Your task to perform on an android device: open a new tab in the chrome app Image 0: 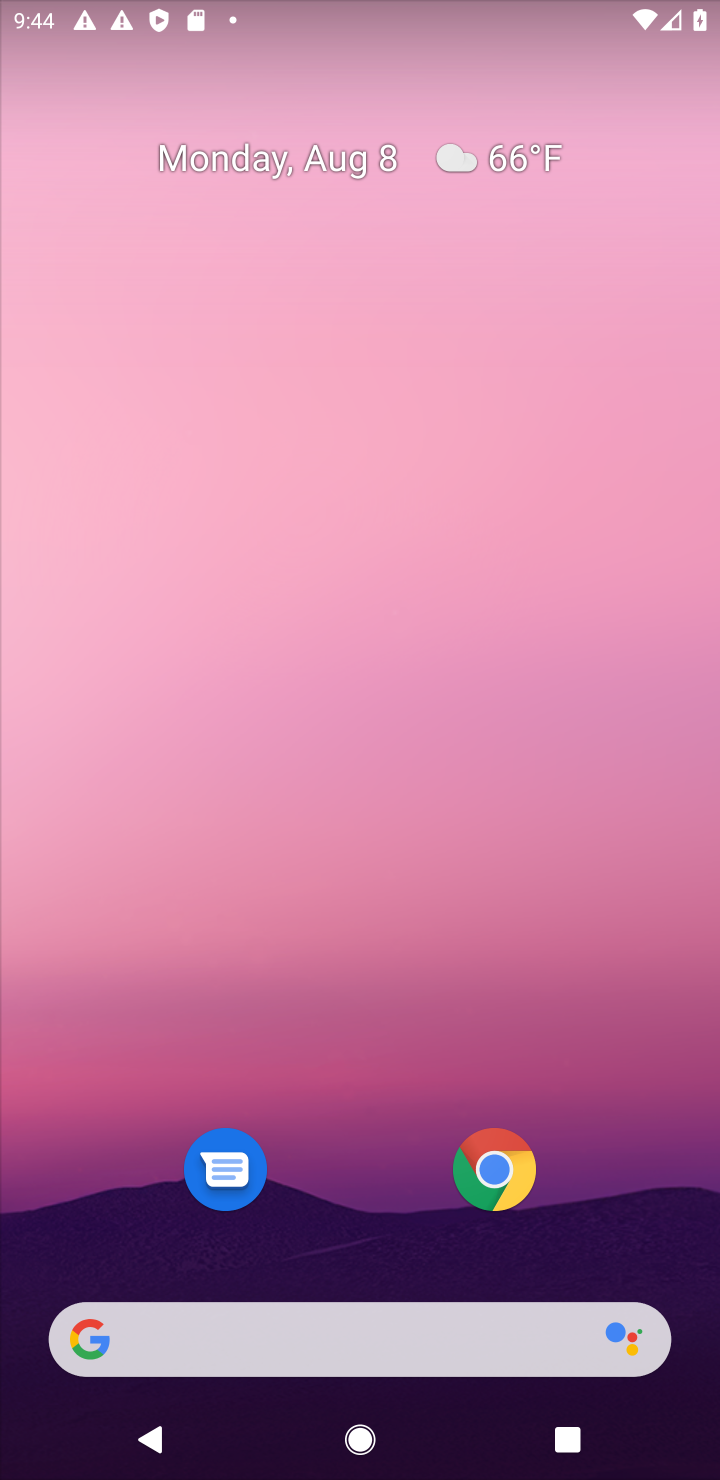
Step 0: click (491, 1166)
Your task to perform on an android device: open a new tab in the chrome app Image 1: 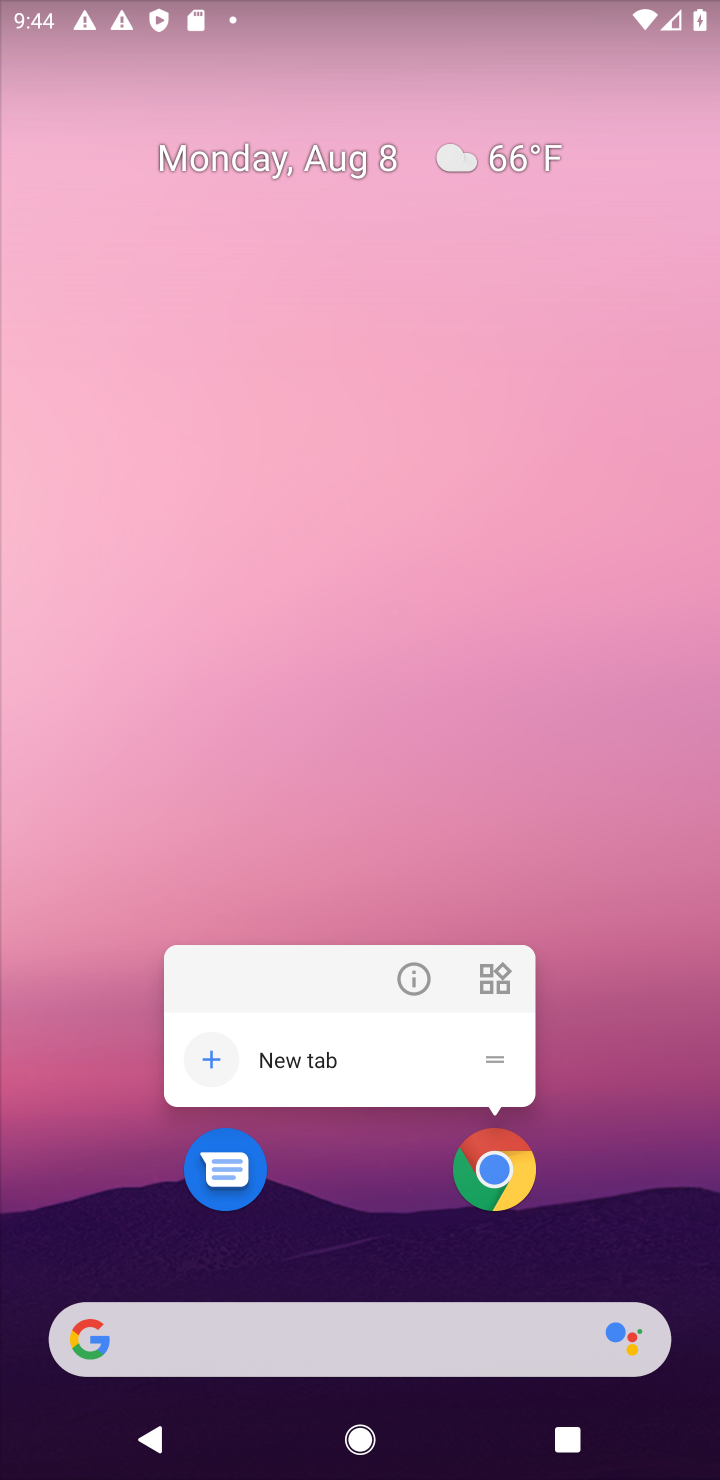
Step 1: click (491, 1166)
Your task to perform on an android device: open a new tab in the chrome app Image 2: 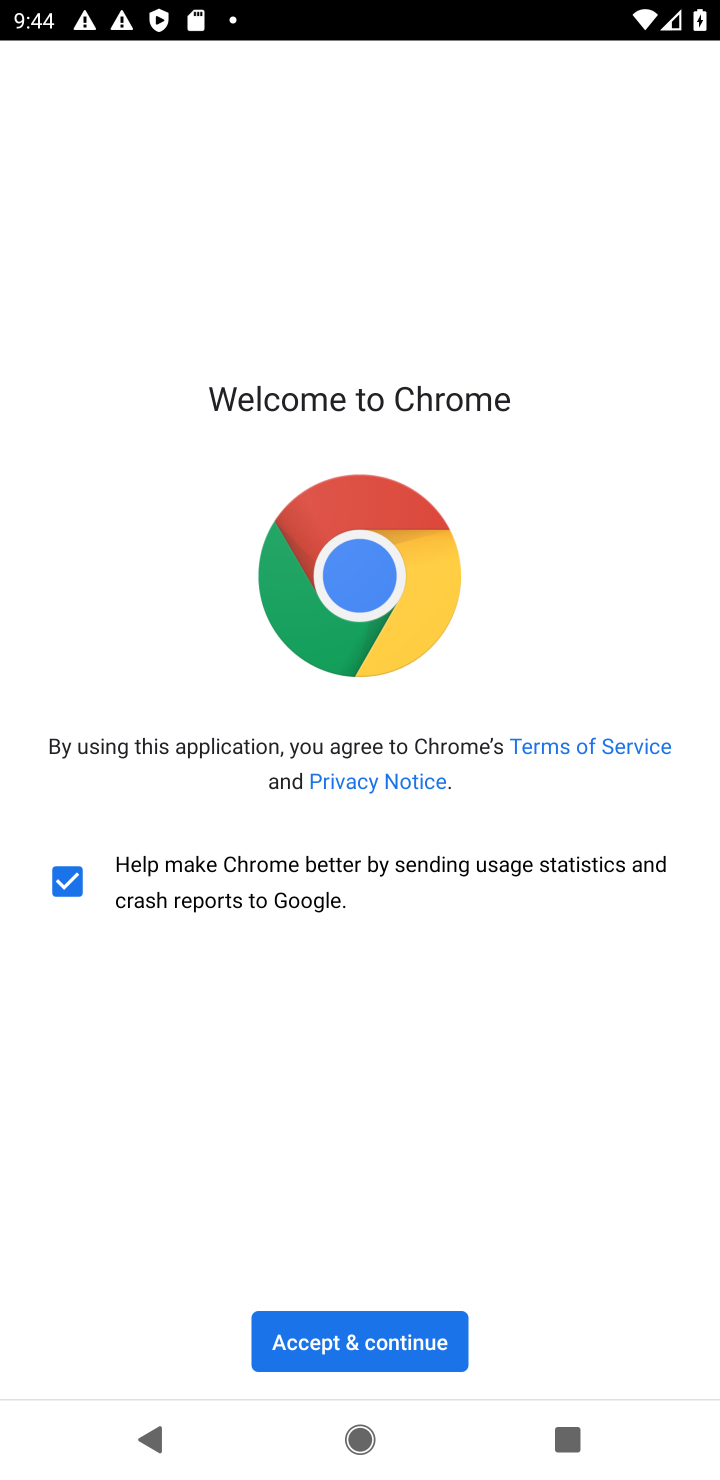
Step 2: click (305, 1338)
Your task to perform on an android device: open a new tab in the chrome app Image 3: 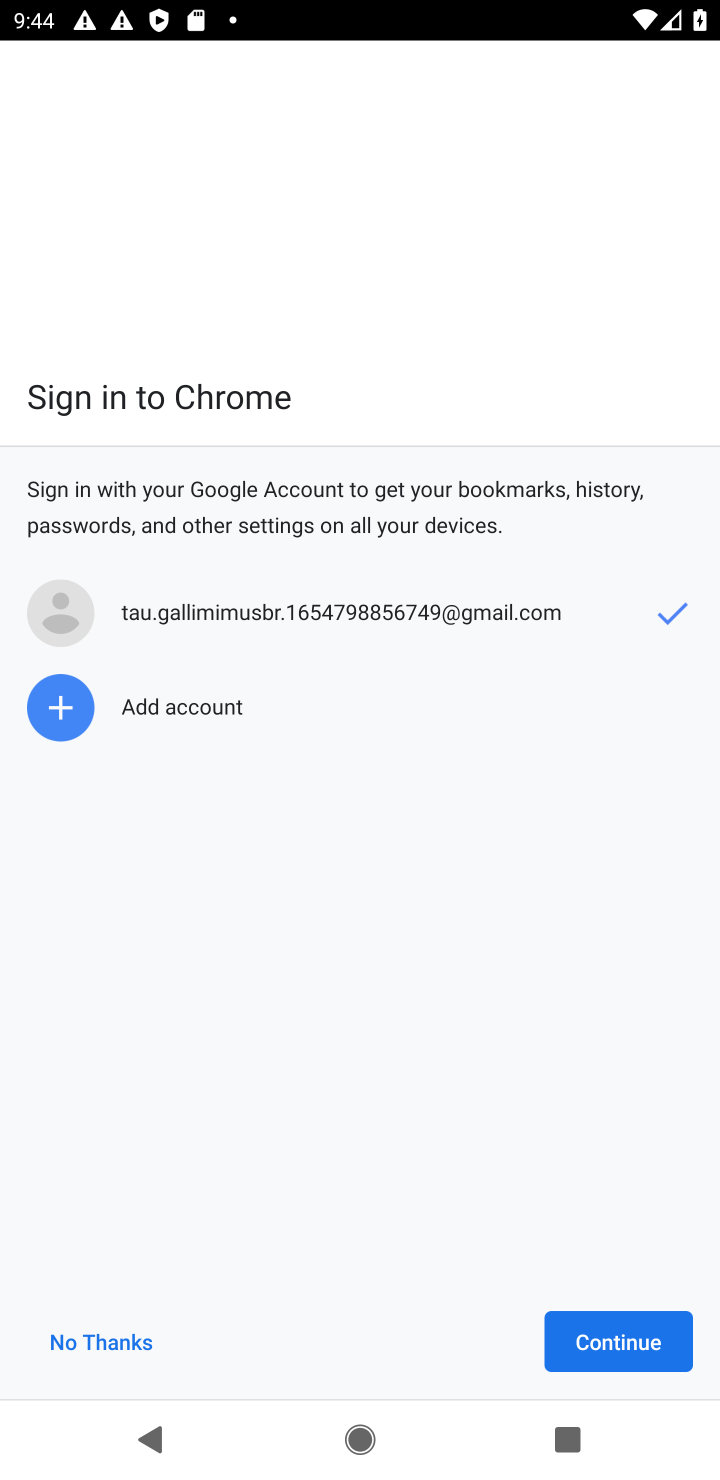
Step 3: click (600, 1324)
Your task to perform on an android device: open a new tab in the chrome app Image 4: 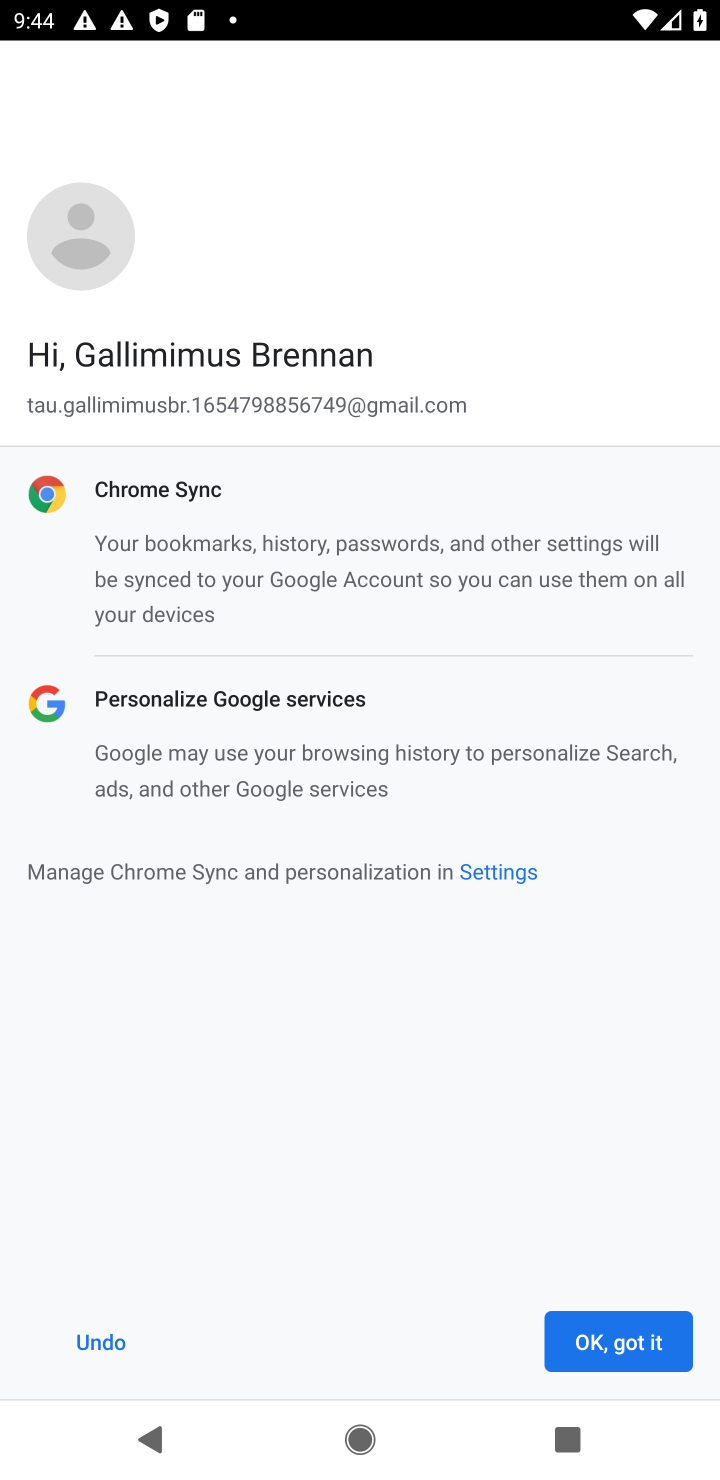
Step 4: click (622, 1347)
Your task to perform on an android device: open a new tab in the chrome app Image 5: 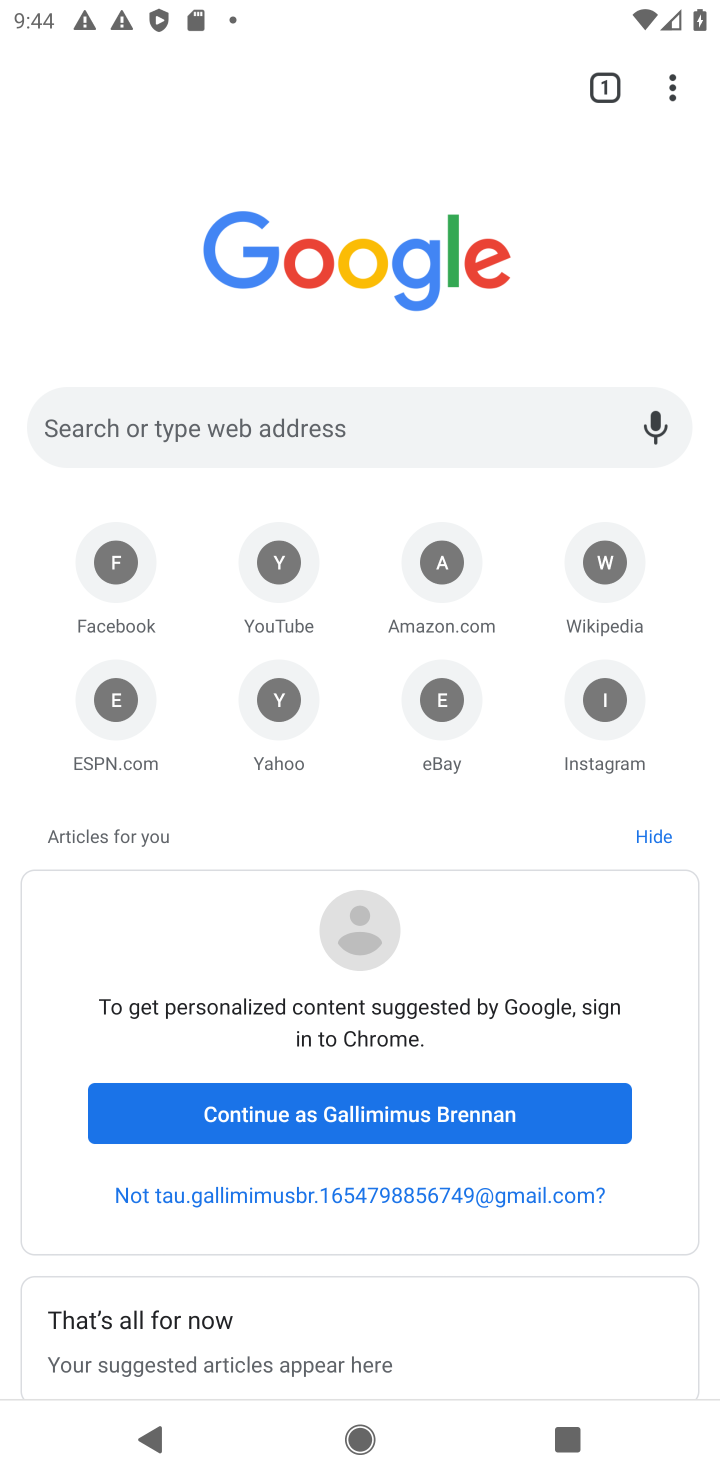
Step 5: click (607, 82)
Your task to perform on an android device: open a new tab in the chrome app Image 6: 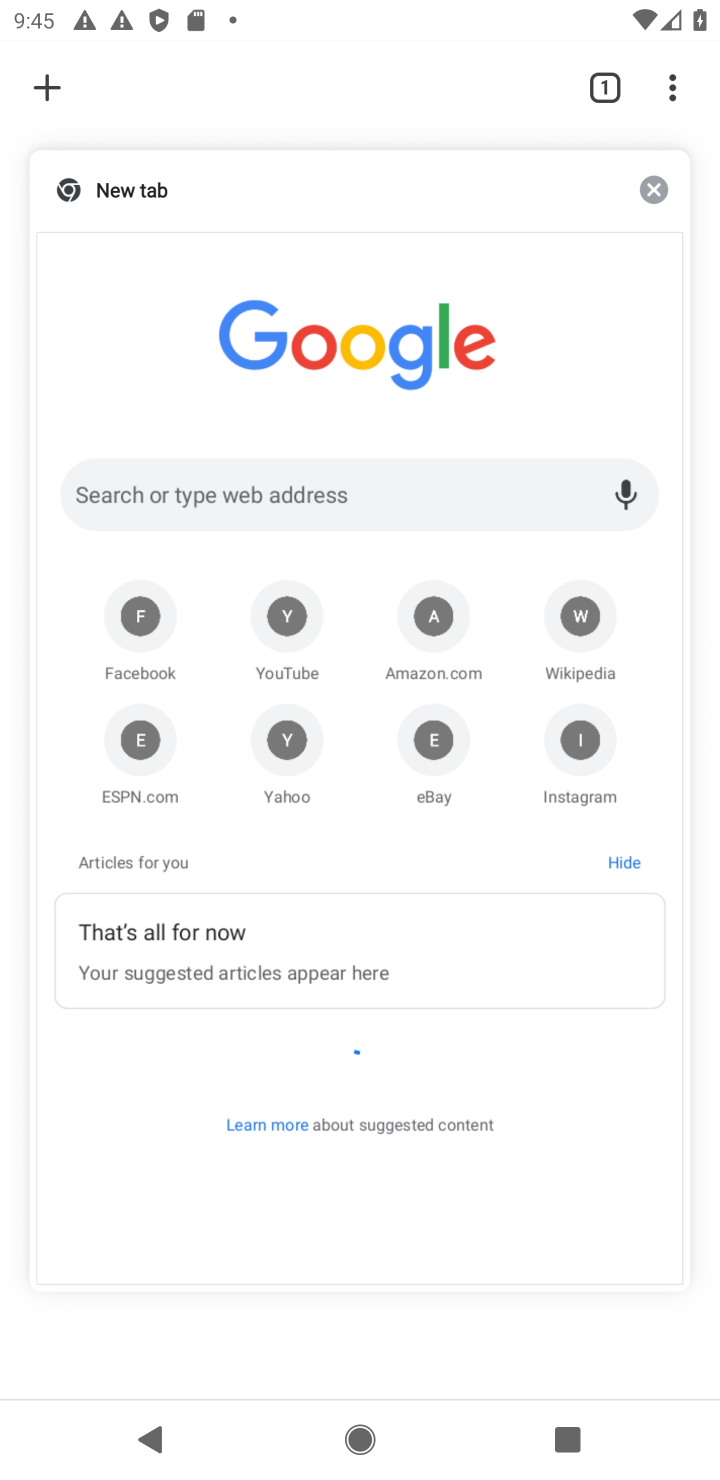
Step 6: click (182, 222)
Your task to perform on an android device: open a new tab in the chrome app Image 7: 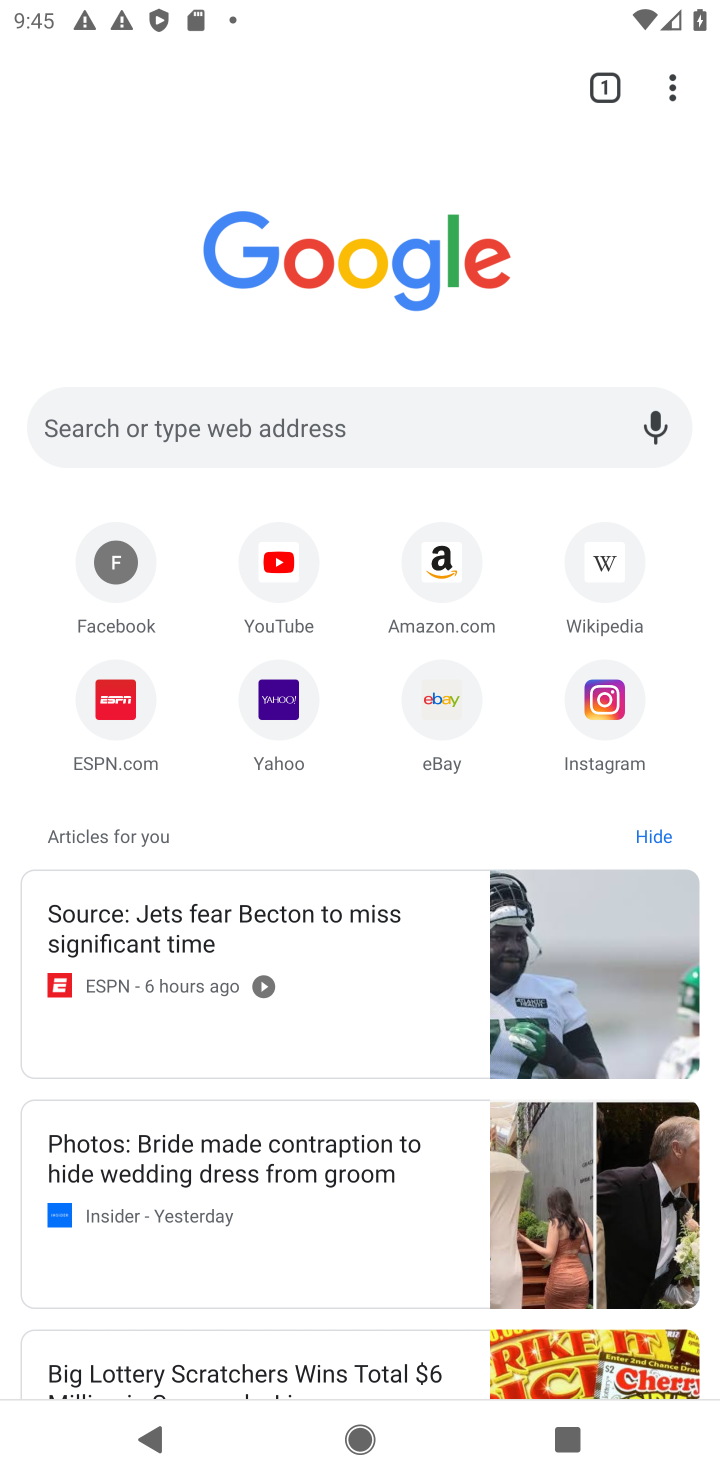
Step 7: task complete